Your task to perform on an android device: turn on location history Image 0: 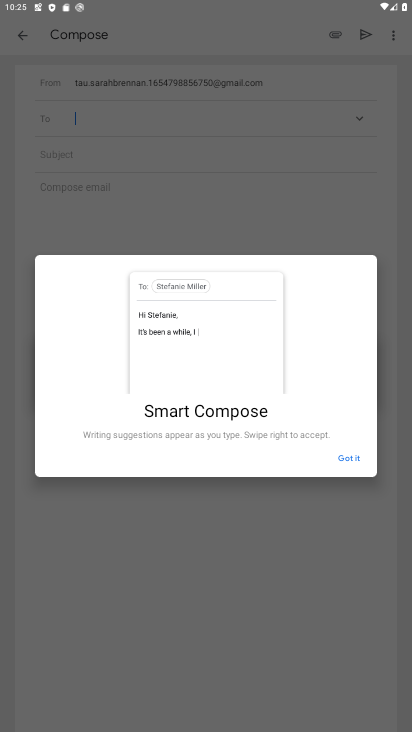
Step 0: press home button
Your task to perform on an android device: turn on location history Image 1: 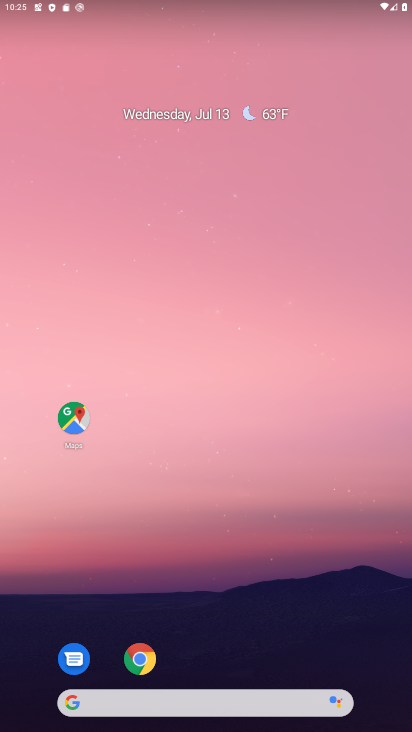
Step 1: drag from (349, 630) to (315, 183)
Your task to perform on an android device: turn on location history Image 2: 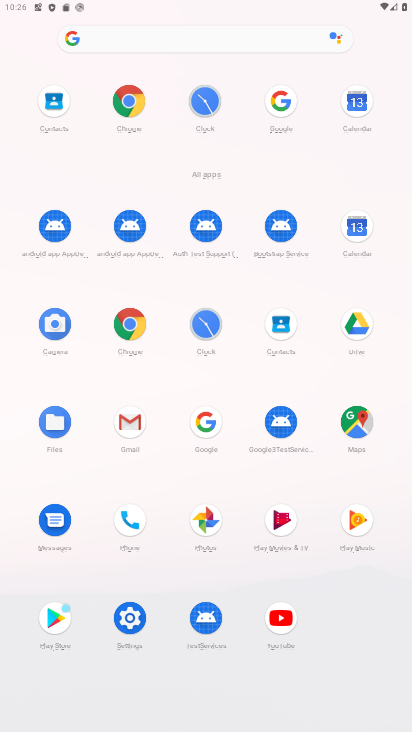
Step 2: click (126, 613)
Your task to perform on an android device: turn on location history Image 3: 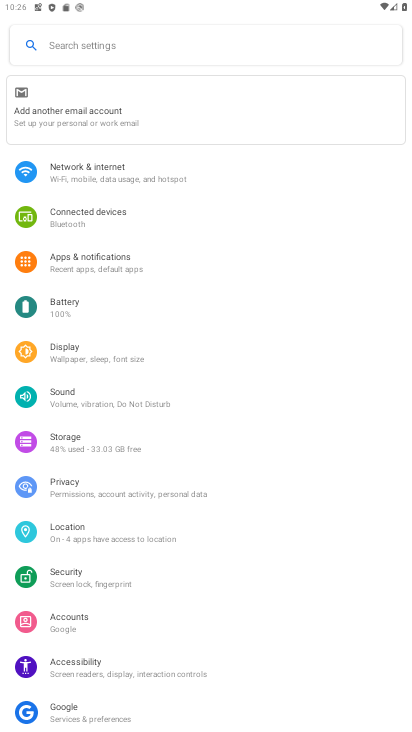
Step 3: click (92, 530)
Your task to perform on an android device: turn on location history Image 4: 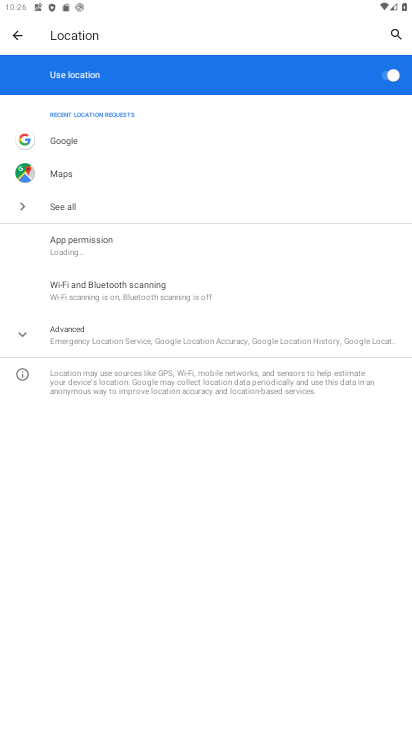
Step 4: click (103, 349)
Your task to perform on an android device: turn on location history Image 5: 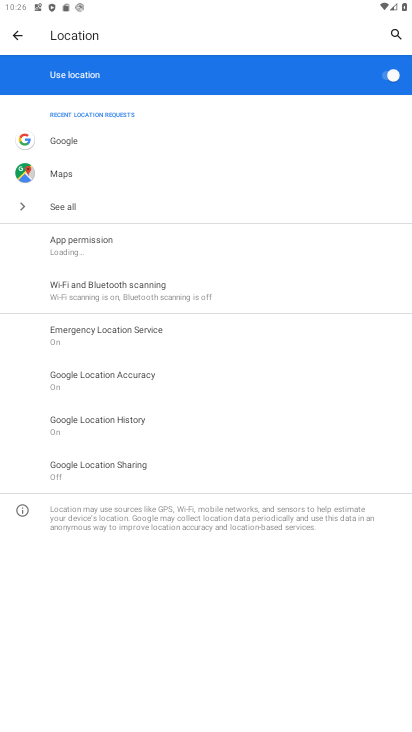
Step 5: click (105, 413)
Your task to perform on an android device: turn on location history Image 6: 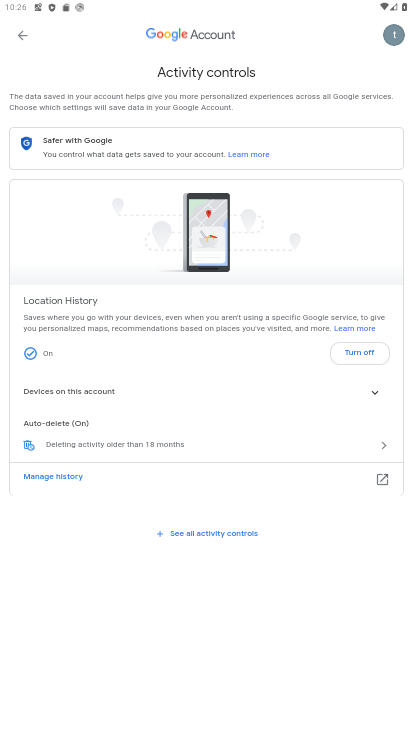
Step 6: task complete